Your task to perform on an android device: toggle pop-ups in chrome Image 0: 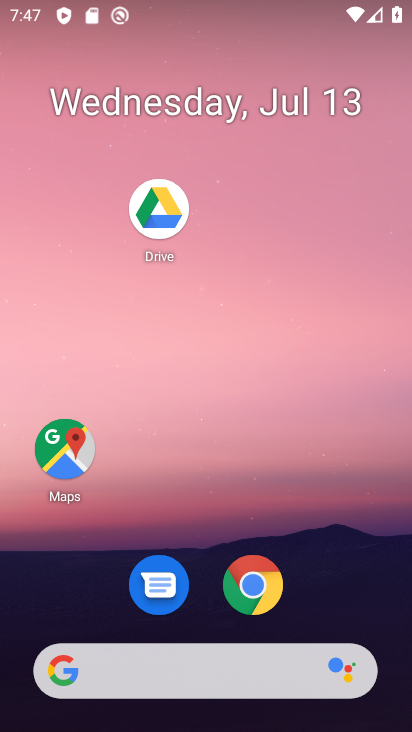
Step 0: click (250, 584)
Your task to perform on an android device: toggle pop-ups in chrome Image 1: 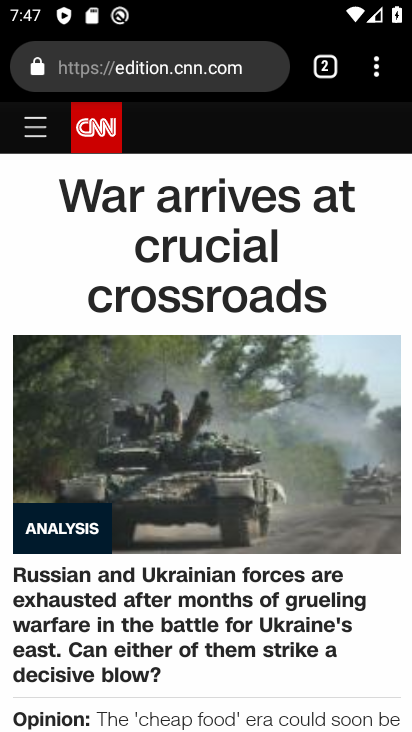
Step 1: drag from (374, 66) to (199, 599)
Your task to perform on an android device: toggle pop-ups in chrome Image 2: 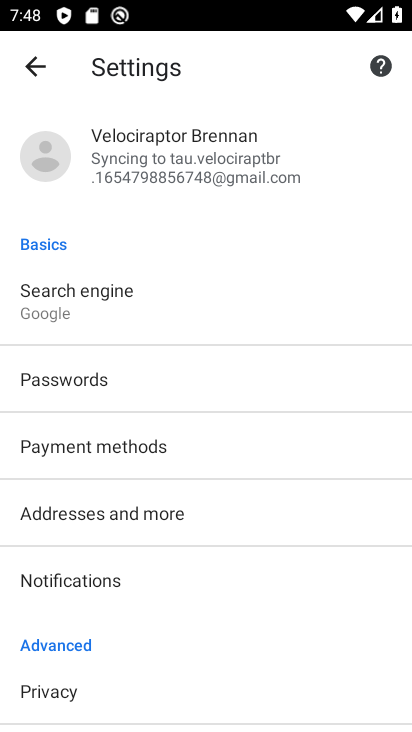
Step 2: drag from (189, 636) to (281, 158)
Your task to perform on an android device: toggle pop-ups in chrome Image 3: 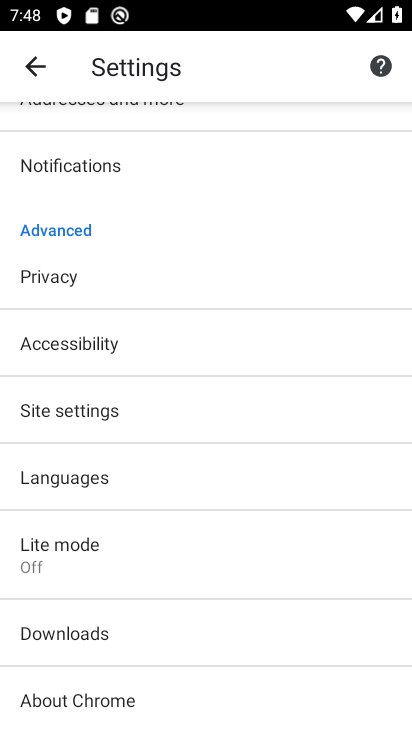
Step 3: click (100, 412)
Your task to perform on an android device: toggle pop-ups in chrome Image 4: 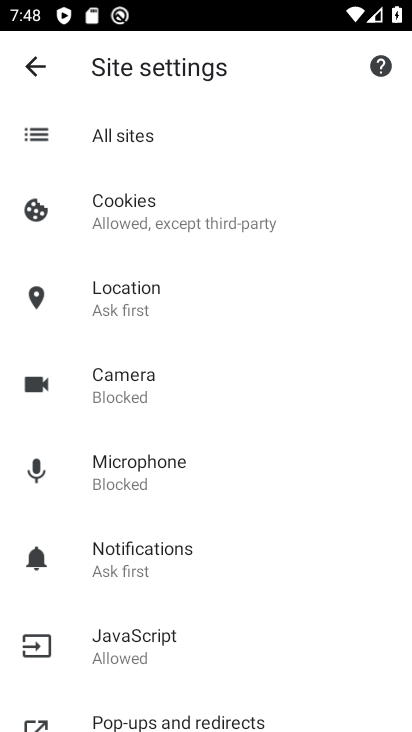
Step 4: drag from (210, 627) to (297, 378)
Your task to perform on an android device: toggle pop-ups in chrome Image 5: 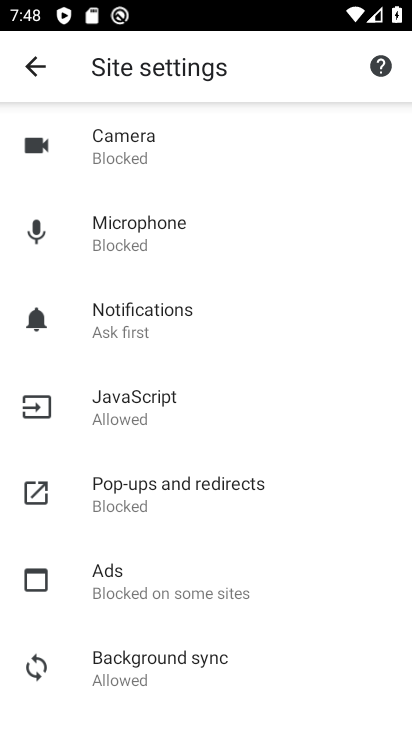
Step 5: click (158, 493)
Your task to perform on an android device: toggle pop-ups in chrome Image 6: 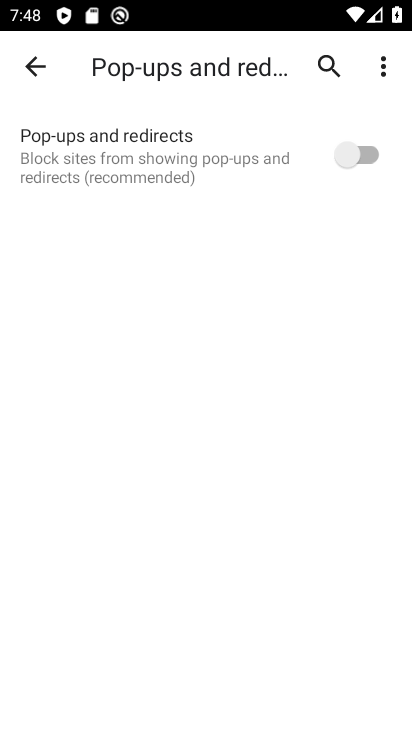
Step 6: click (372, 155)
Your task to perform on an android device: toggle pop-ups in chrome Image 7: 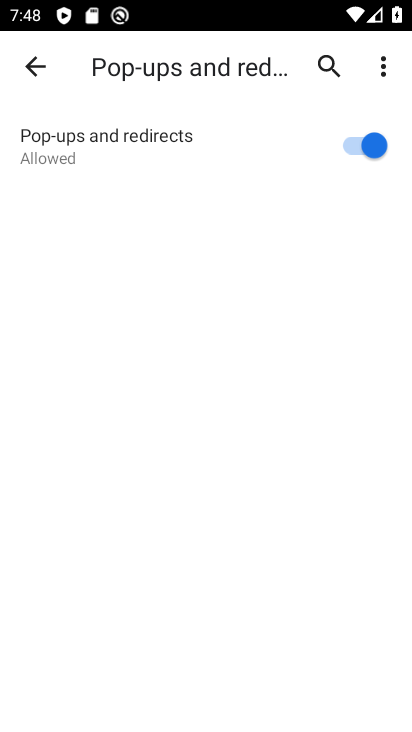
Step 7: task complete